Your task to perform on an android device: turn on improve location accuracy Image 0: 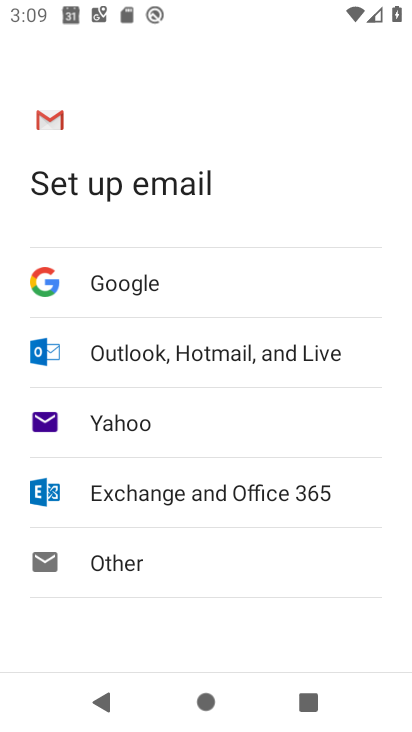
Step 0: press home button
Your task to perform on an android device: turn on improve location accuracy Image 1: 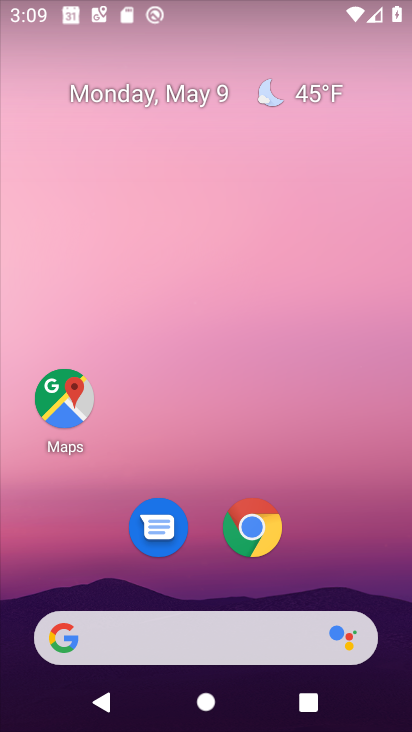
Step 1: drag from (198, 544) to (238, 296)
Your task to perform on an android device: turn on improve location accuracy Image 2: 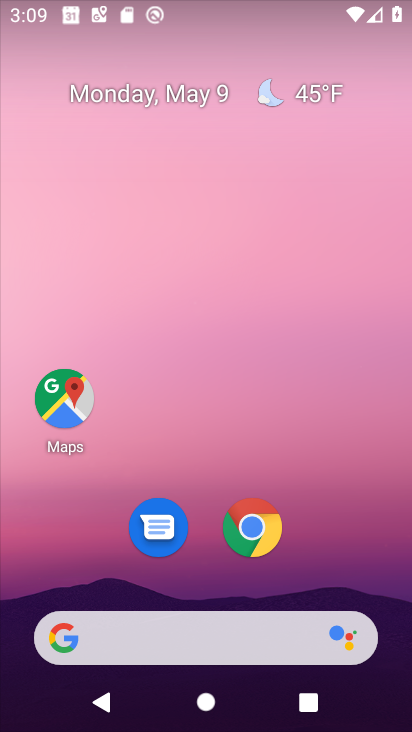
Step 2: drag from (220, 542) to (274, 109)
Your task to perform on an android device: turn on improve location accuracy Image 3: 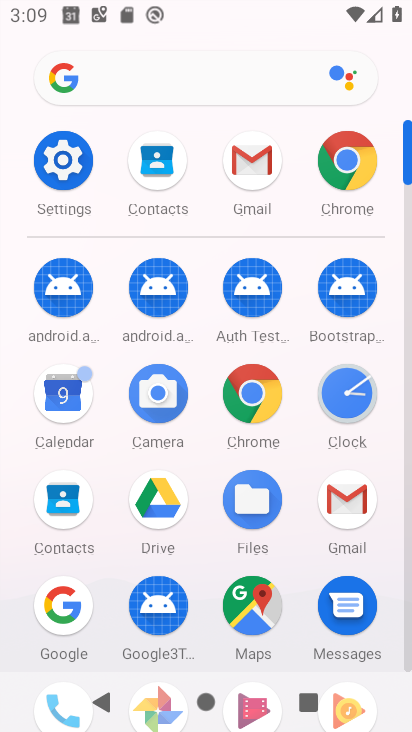
Step 3: click (64, 165)
Your task to perform on an android device: turn on improve location accuracy Image 4: 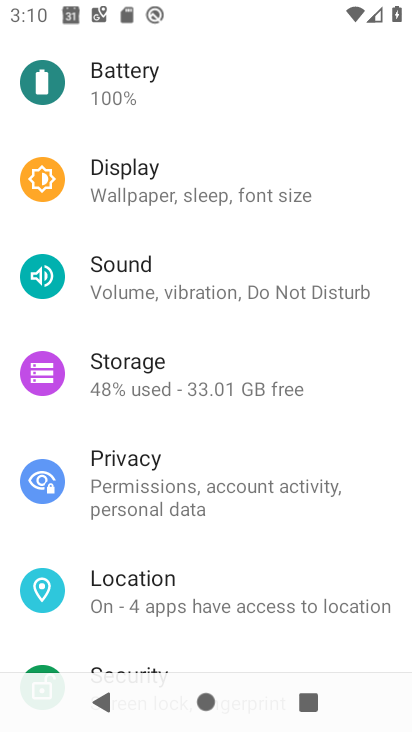
Step 4: drag from (221, 228) to (232, 196)
Your task to perform on an android device: turn on improve location accuracy Image 5: 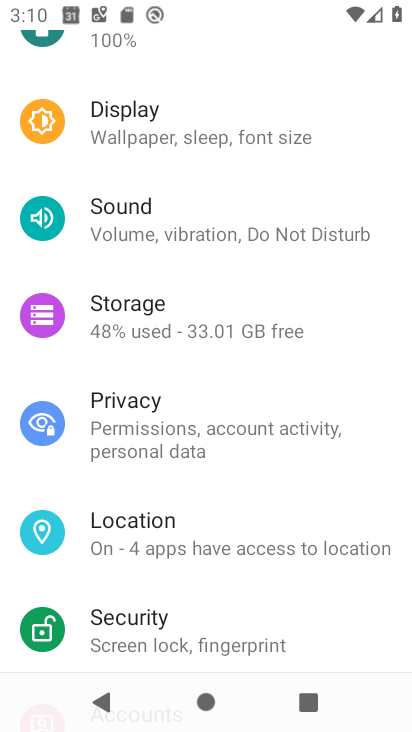
Step 5: click (197, 530)
Your task to perform on an android device: turn on improve location accuracy Image 6: 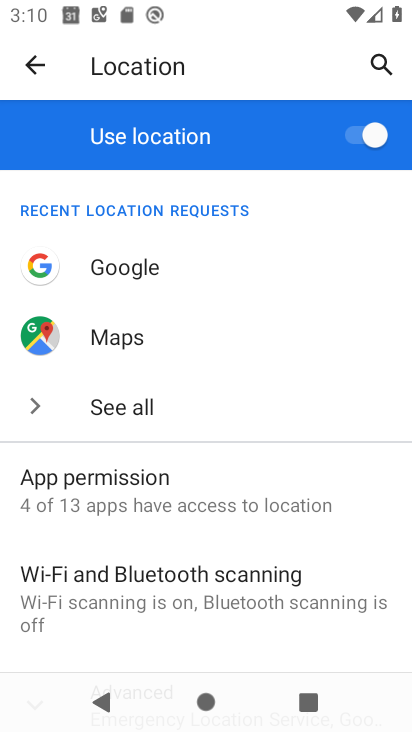
Step 6: drag from (196, 536) to (212, 347)
Your task to perform on an android device: turn on improve location accuracy Image 7: 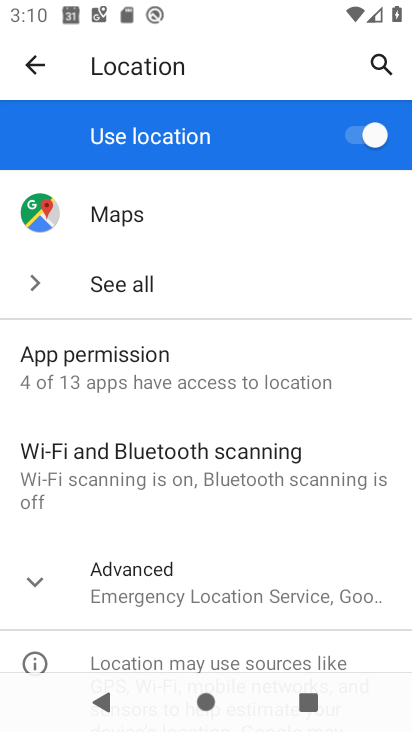
Step 7: click (173, 573)
Your task to perform on an android device: turn on improve location accuracy Image 8: 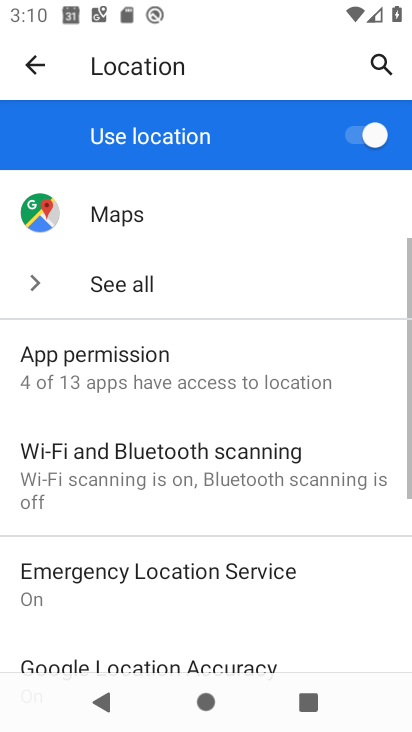
Step 8: drag from (177, 545) to (227, 148)
Your task to perform on an android device: turn on improve location accuracy Image 9: 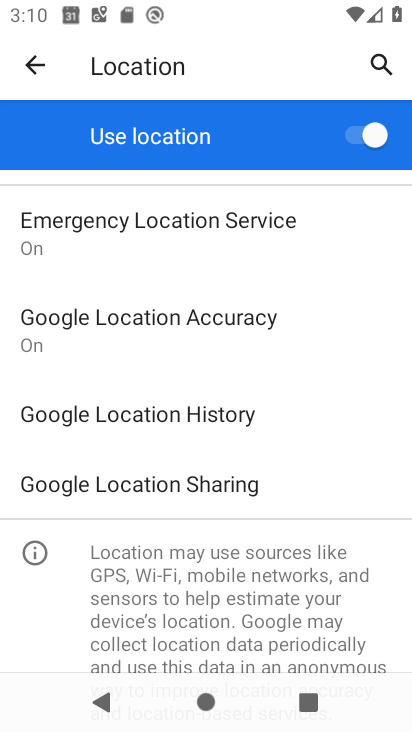
Step 9: click (218, 321)
Your task to perform on an android device: turn on improve location accuracy Image 10: 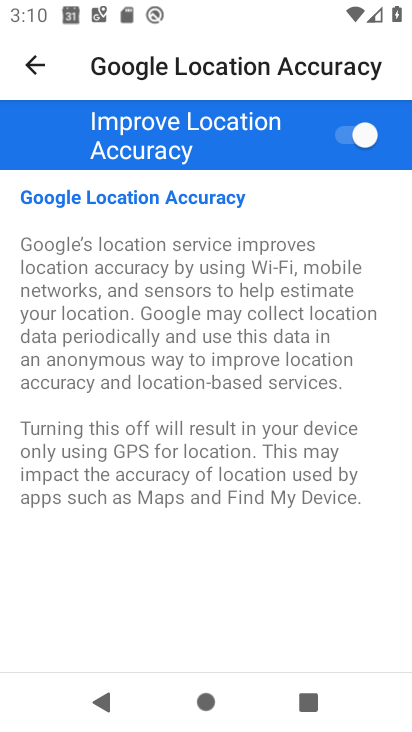
Step 10: task complete